Your task to perform on an android device: open a bookmark in the chrome app Image 0: 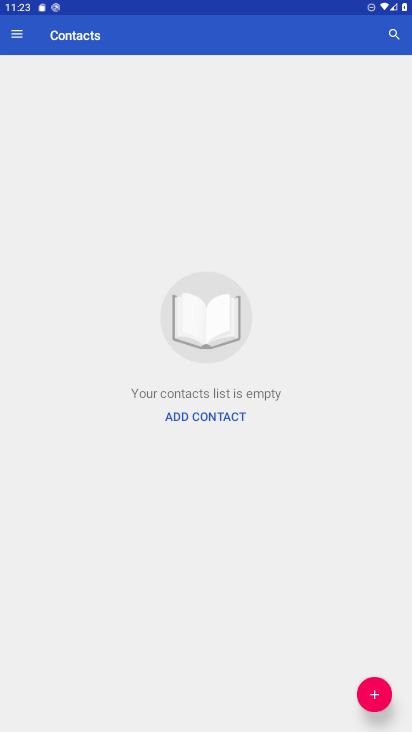
Step 0: press back button
Your task to perform on an android device: open a bookmark in the chrome app Image 1: 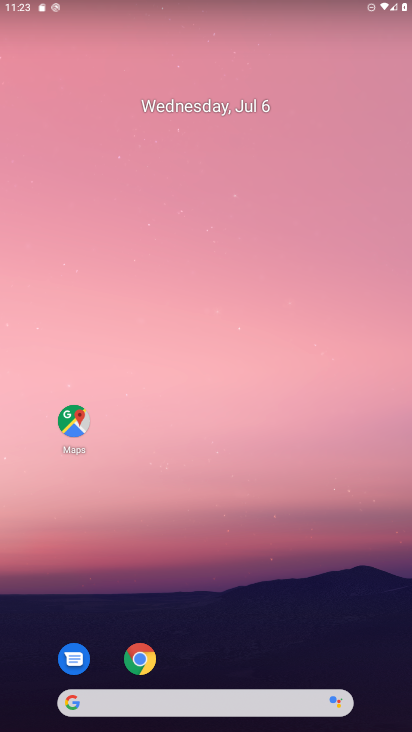
Step 1: click (149, 661)
Your task to perform on an android device: open a bookmark in the chrome app Image 2: 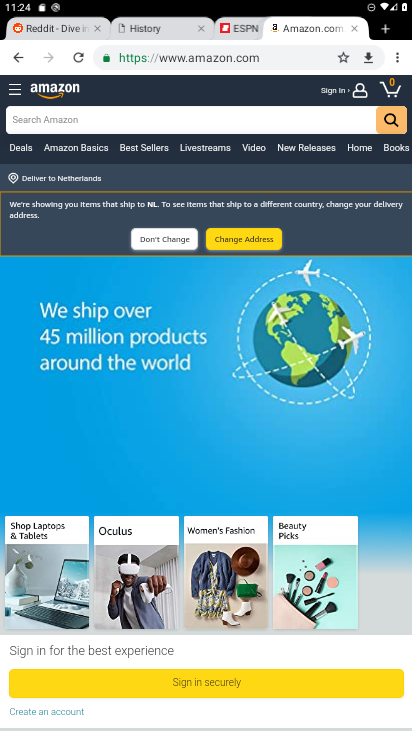
Step 2: task complete